Your task to perform on an android device: toggle translation in the chrome app Image 0: 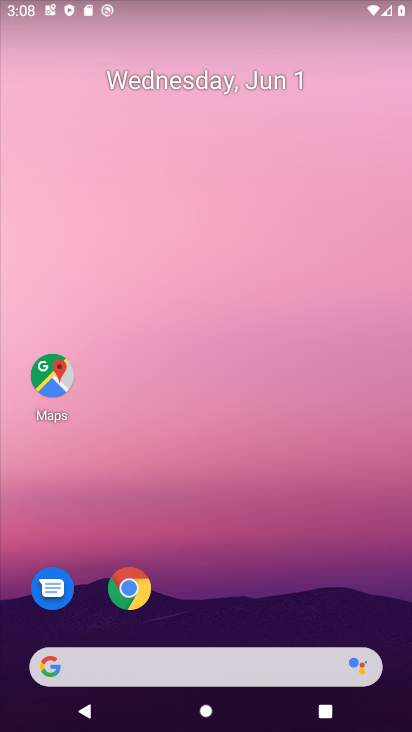
Step 0: click (144, 593)
Your task to perform on an android device: toggle translation in the chrome app Image 1: 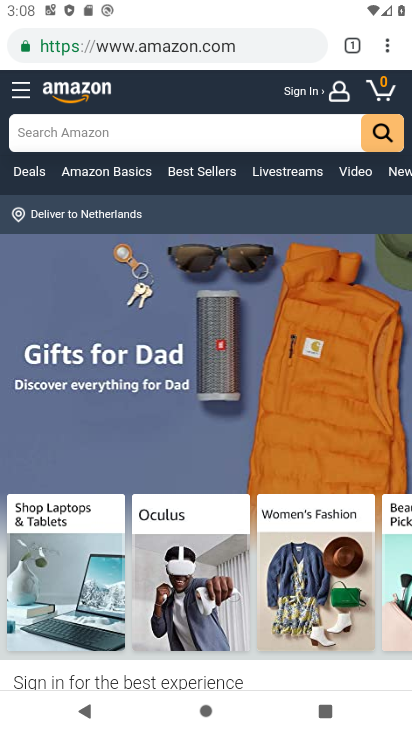
Step 1: click (395, 50)
Your task to perform on an android device: toggle translation in the chrome app Image 2: 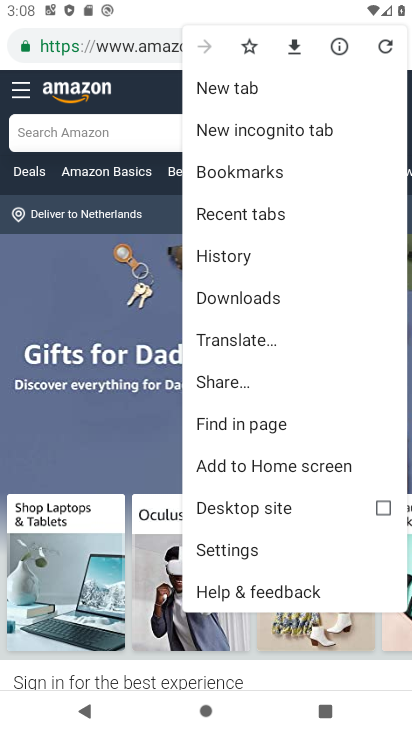
Step 2: click (277, 543)
Your task to perform on an android device: toggle translation in the chrome app Image 3: 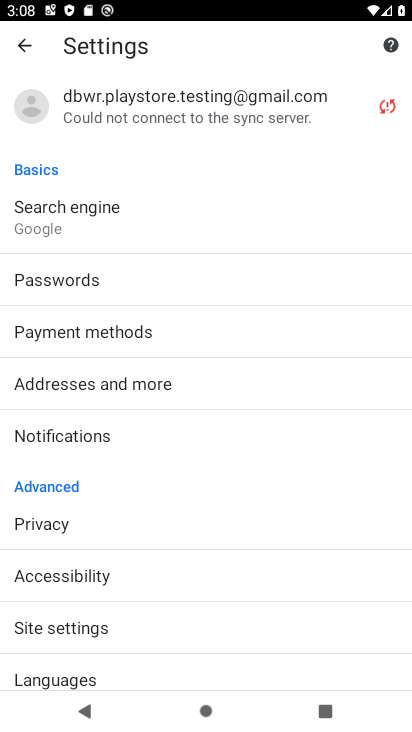
Step 3: click (100, 677)
Your task to perform on an android device: toggle translation in the chrome app Image 4: 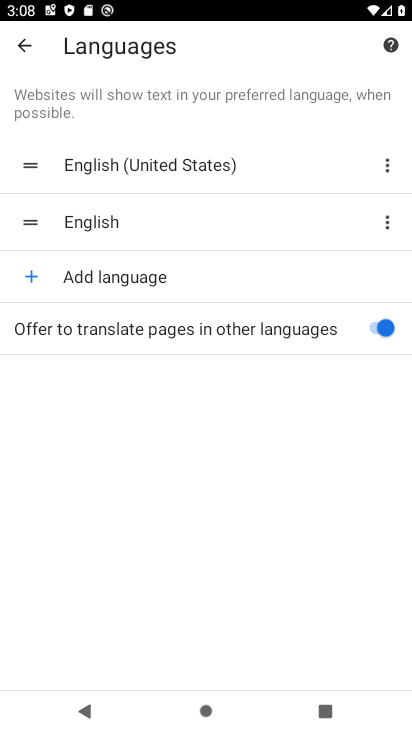
Step 4: click (386, 324)
Your task to perform on an android device: toggle translation in the chrome app Image 5: 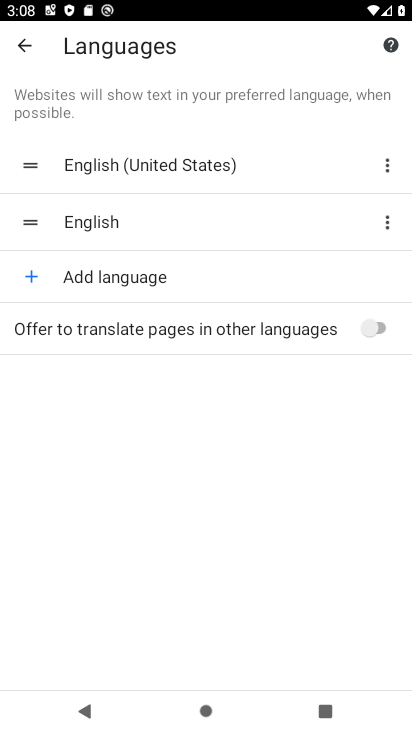
Step 5: task complete